Your task to perform on an android device: change notifications settings Image 0: 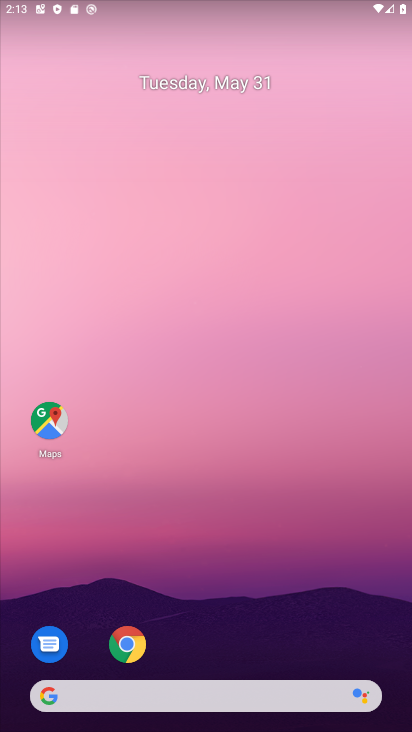
Step 0: drag from (395, 612) to (360, 227)
Your task to perform on an android device: change notifications settings Image 1: 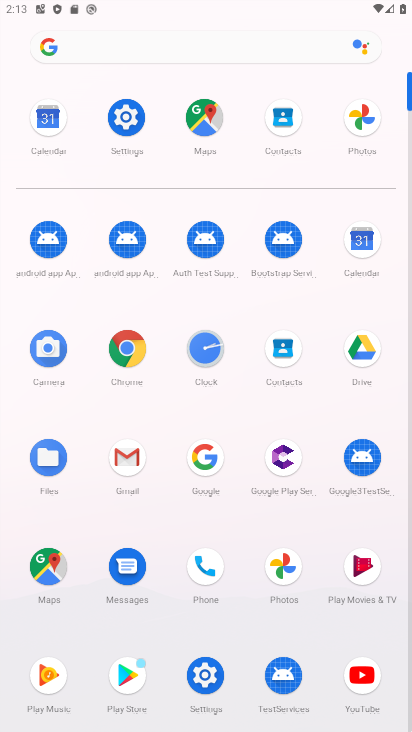
Step 1: click (213, 680)
Your task to perform on an android device: change notifications settings Image 2: 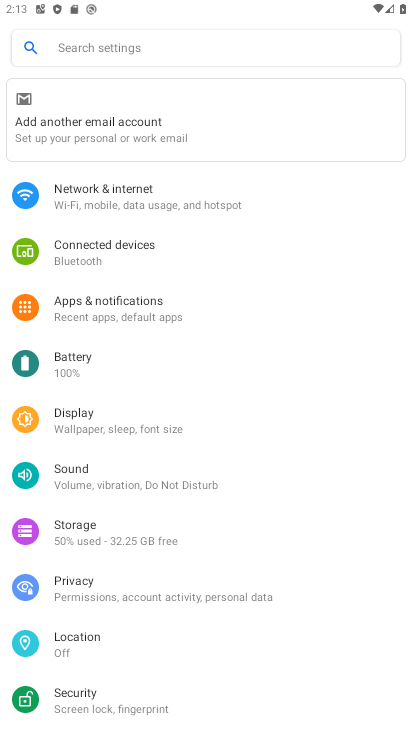
Step 2: click (118, 306)
Your task to perform on an android device: change notifications settings Image 3: 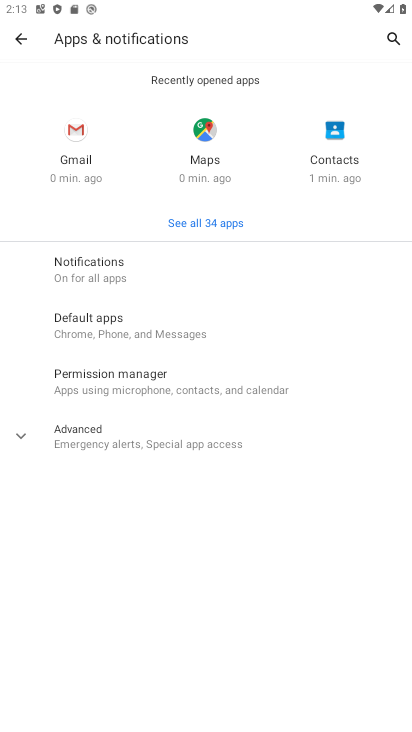
Step 3: click (95, 267)
Your task to perform on an android device: change notifications settings Image 4: 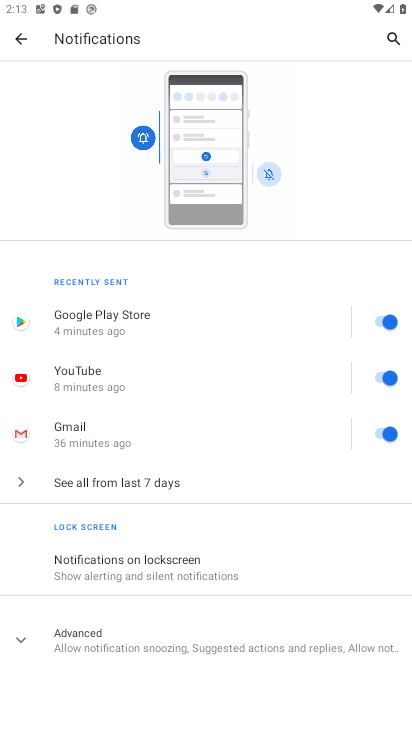
Step 4: click (18, 632)
Your task to perform on an android device: change notifications settings Image 5: 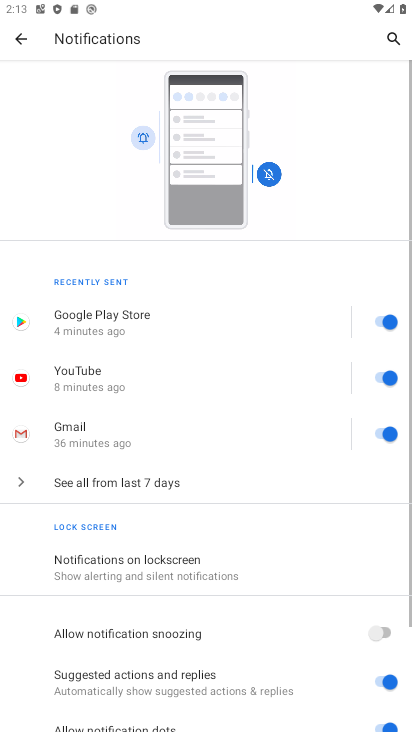
Step 5: task complete